Your task to perform on an android device: set the stopwatch Image 0: 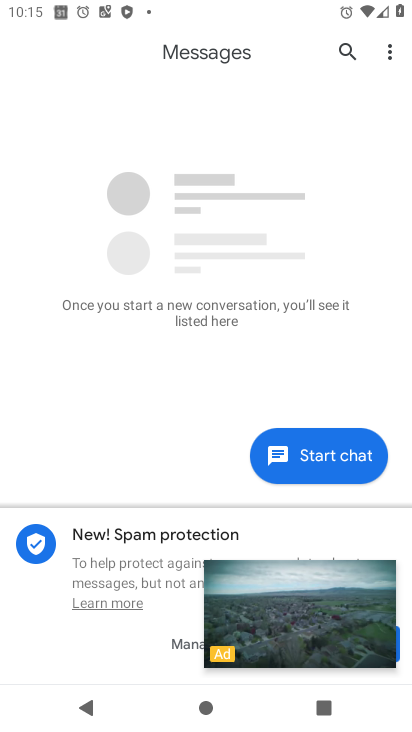
Step 0: press home button
Your task to perform on an android device: set the stopwatch Image 1: 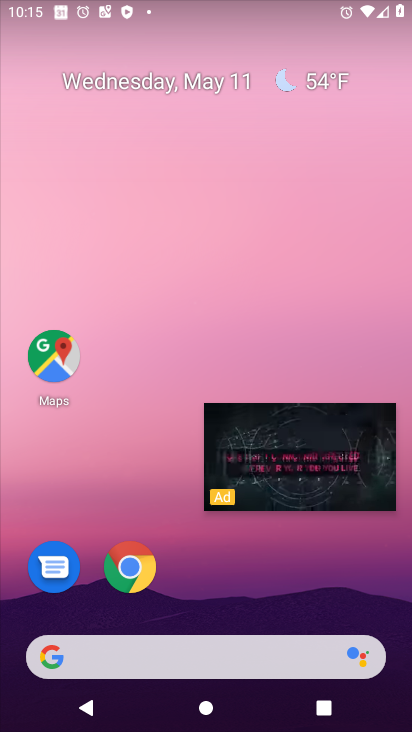
Step 1: click (319, 423)
Your task to perform on an android device: set the stopwatch Image 2: 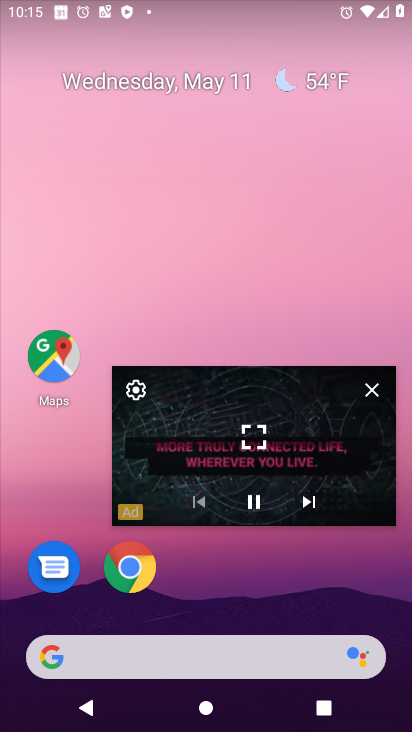
Step 2: click (376, 385)
Your task to perform on an android device: set the stopwatch Image 3: 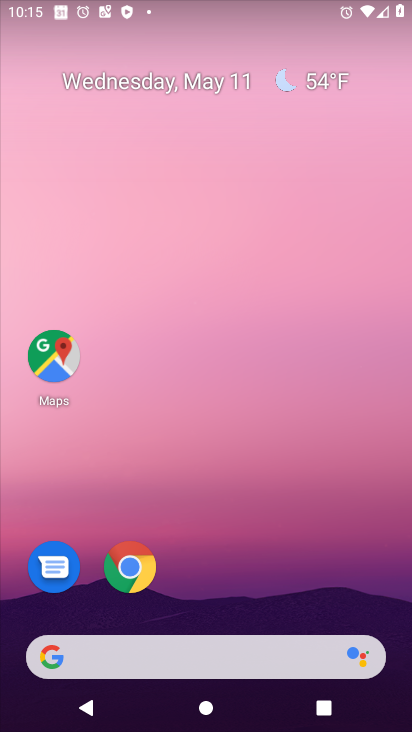
Step 3: drag from (197, 571) to (256, 80)
Your task to perform on an android device: set the stopwatch Image 4: 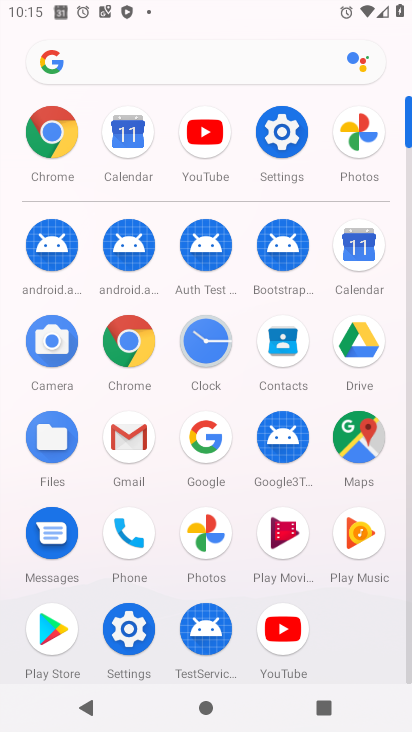
Step 4: click (202, 351)
Your task to perform on an android device: set the stopwatch Image 5: 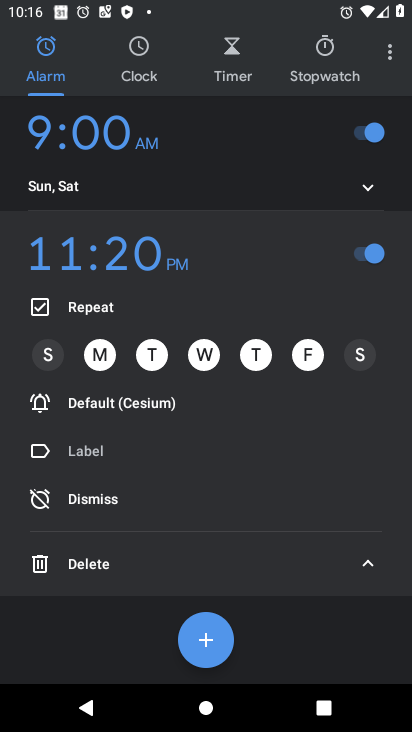
Step 5: click (309, 61)
Your task to perform on an android device: set the stopwatch Image 6: 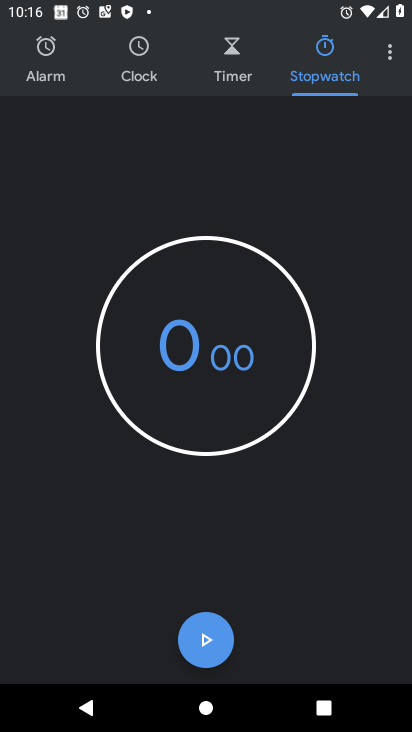
Step 6: click (207, 624)
Your task to perform on an android device: set the stopwatch Image 7: 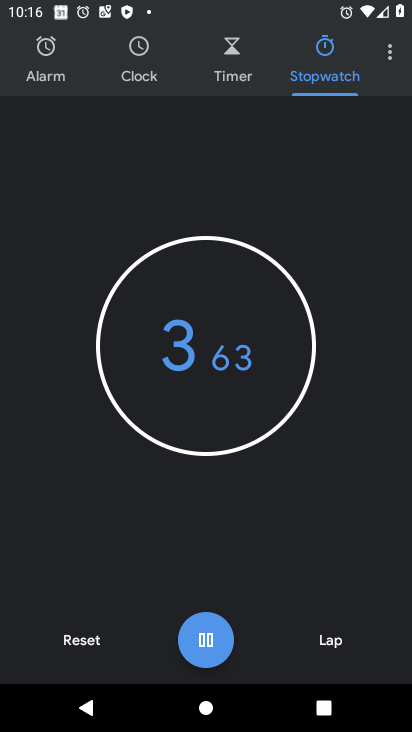
Step 7: task complete